Your task to perform on an android device: toggle improve location accuracy Image 0: 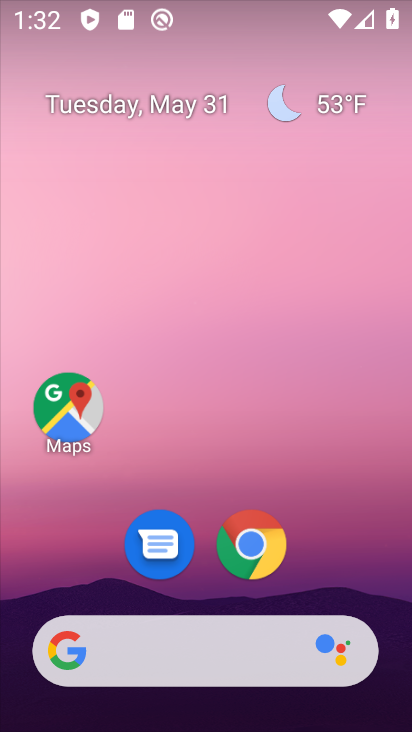
Step 0: drag from (346, 533) to (319, 5)
Your task to perform on an android device: toggle improve location accuracy Image 1: 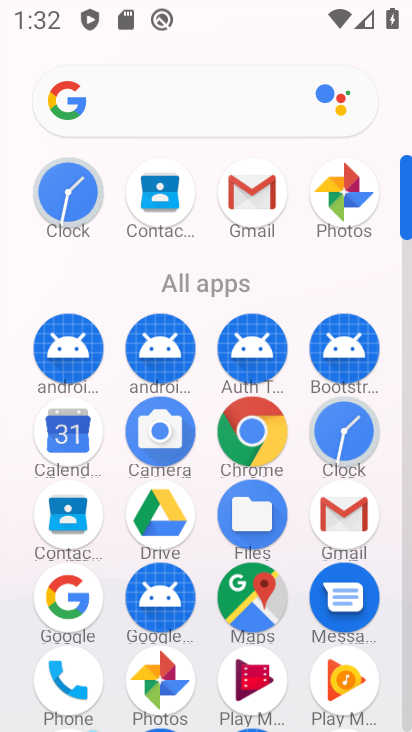
Step 1: drag from (213, 316) to (203, 45)
Your task to perform on an android device: toggle improve location accuracy Image 2: 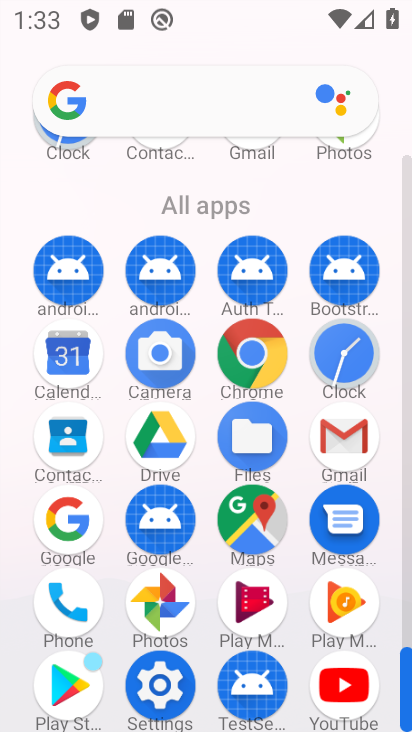
Step 2: click (185, 683)
Your task to perform on an android device: toggle improve location accuracy Image 3: 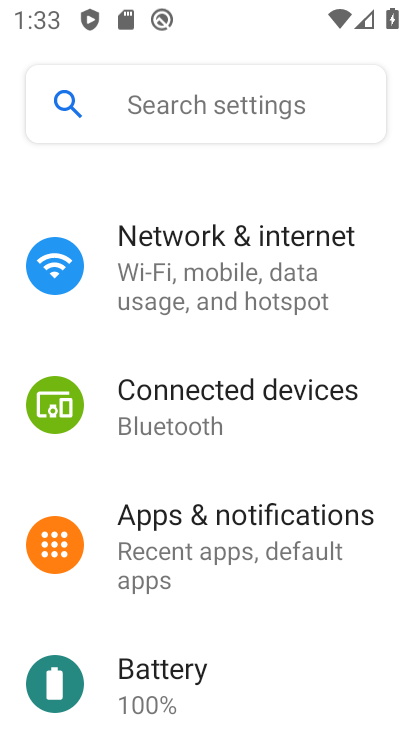
Step 3: drag from (315, 676) to (277, 219)
Your task to perform on an android device: toggle improve location accuracy Image 4: 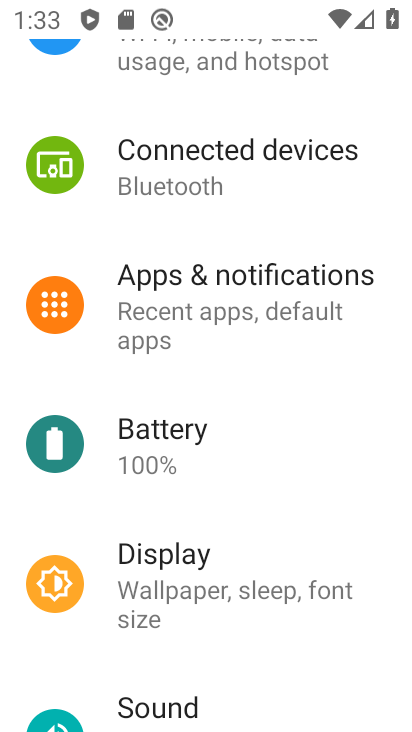
Step 4: drag from (290, 528) to (261, 147)
Your task to perform on an android device: toggle improve location accuracy Image 5: 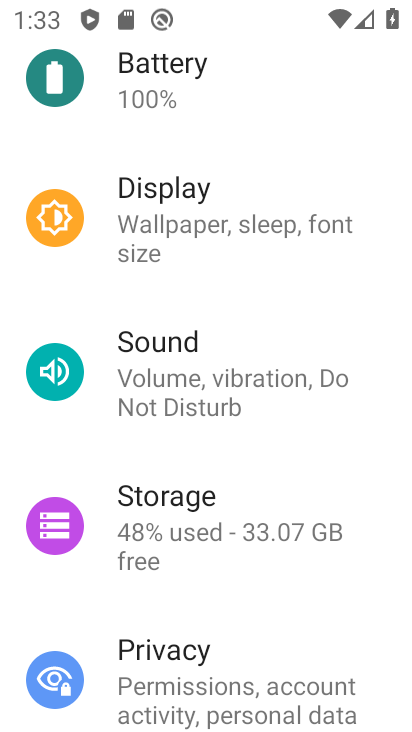
Step 5: drag from (182, 650) to (164, 201)
Your task to perform on an android device: toggle improve location accuracy Image 6: 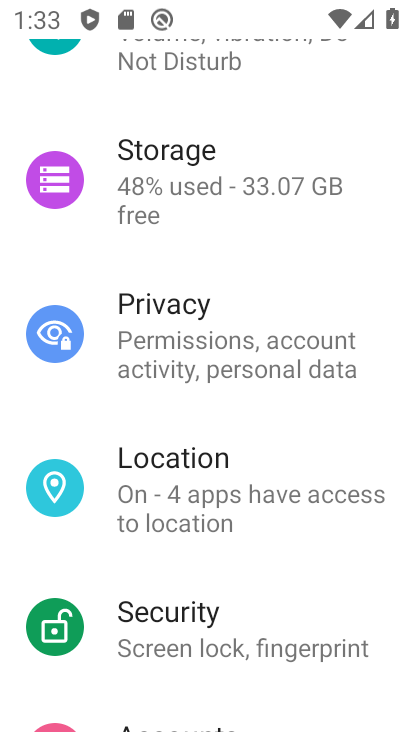
Step 6: click (160, 496)
Your task to perform on an android device: toggle improve location accuracy Image 7: 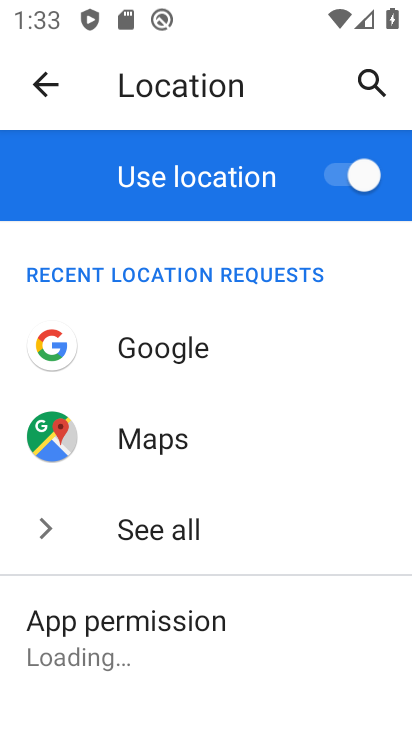
Step 7: drag from (245, 594) to (218, 124)
Your task to perform on an android device: toggle improve location accuracy Image 8: 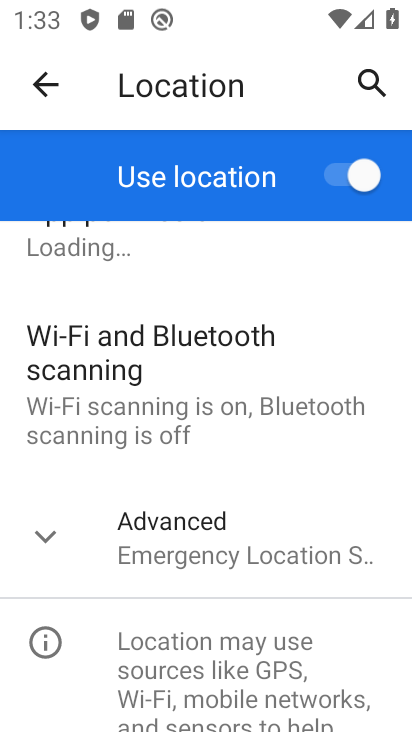
Step 8: click (208, 578)
Your task to perform on an android device: toggle improve location accuracy Image 9: 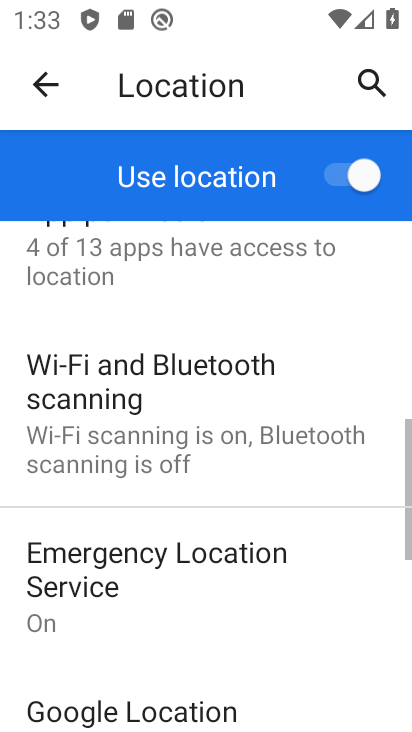
Step 9: drag from (208, 578) to (203, 349)
Your task to perform on an android device: toggle improve location accuracy Image 10: 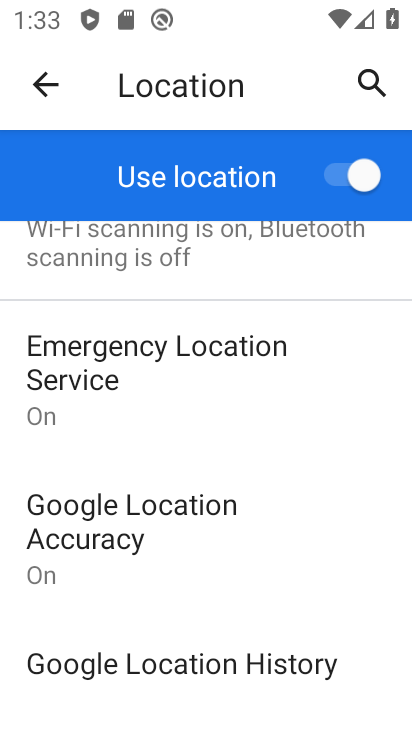
Step 10: click (207, 535)
Your task to perform on an android device: toggle improve location accuracy Image 11: 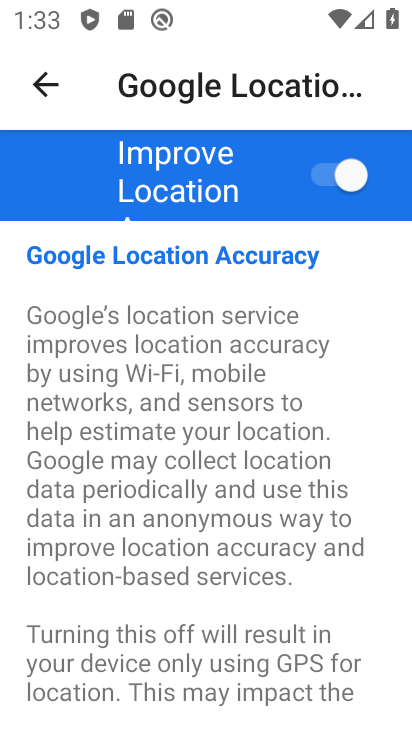
Step 11: click (341, 176)
Your task to perform on an android device: toggle improve location accuracy Image 12: 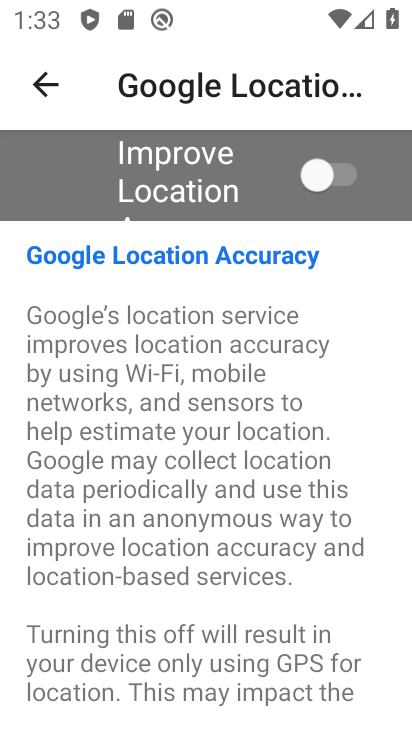
Step 12: task complete